Your task to perform on an android device: Open calendar and show me the fourth week of next month Image 0: 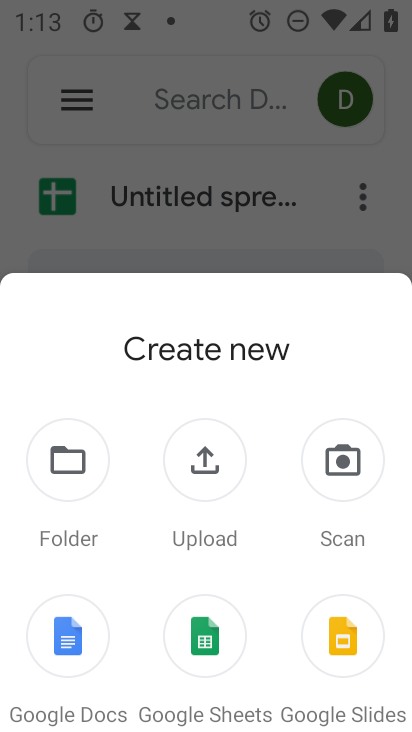
Step 0: press home button
Your task to perform on an android device: Open calendar and show me the fourth week of next month Image 1: 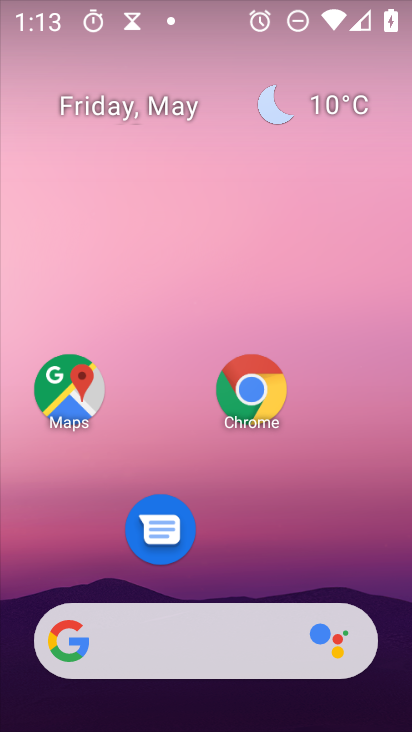
Step 1: drag from (140, 641) to (311, 160)
Your task to perform on an android device: Open calendar and show me the fourth week of next month Image 2: 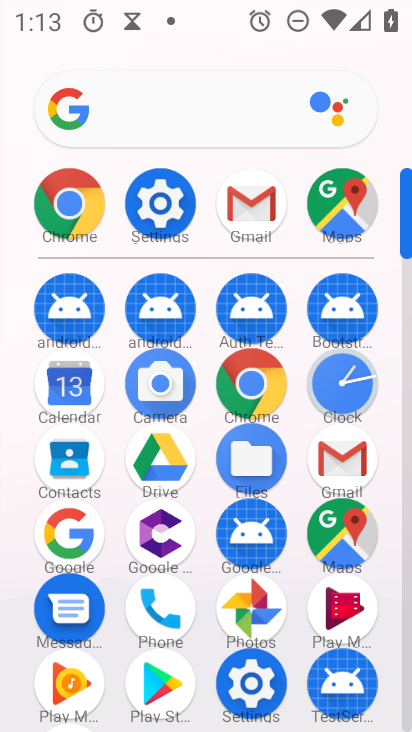
Step 2: click (84, 399)
Your task to perform on an android device: Open calendar and show me the fourth week of next month Image 3: 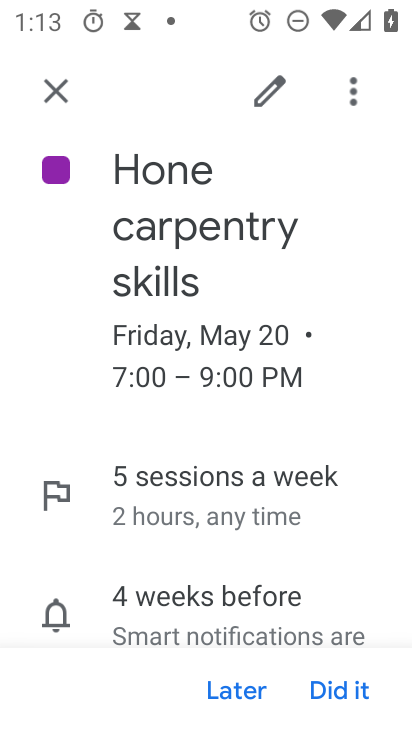
Step 3: click (59, 94)
Your task to perform on an android device: Open calendar and show me the fourth week of next month Image 4: 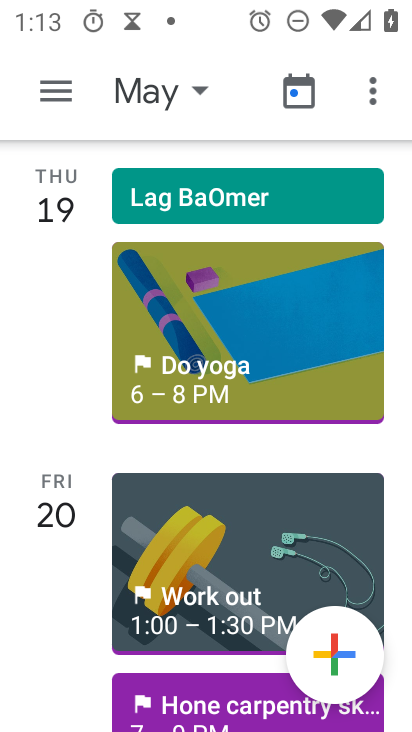
Step 4: click (158, 94)
Your task to perform on an android device: Open calendar and show me the fourth week of next month Image 5: 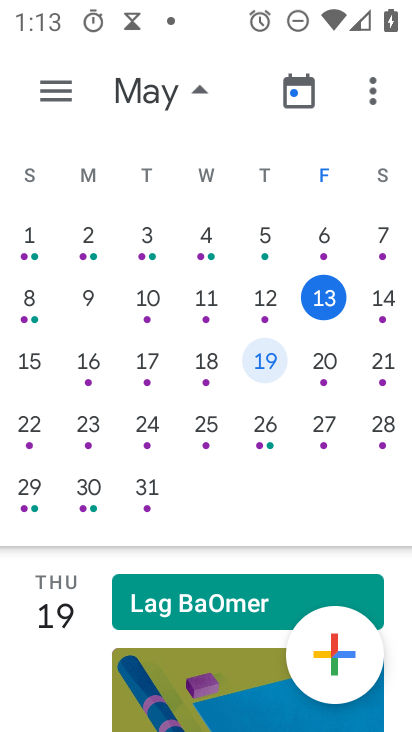
Step 5: drag from (371, 351) to (11, 378)
Your task to perform on an android device: Open calendar and show me the fourth week of next month Image 6: 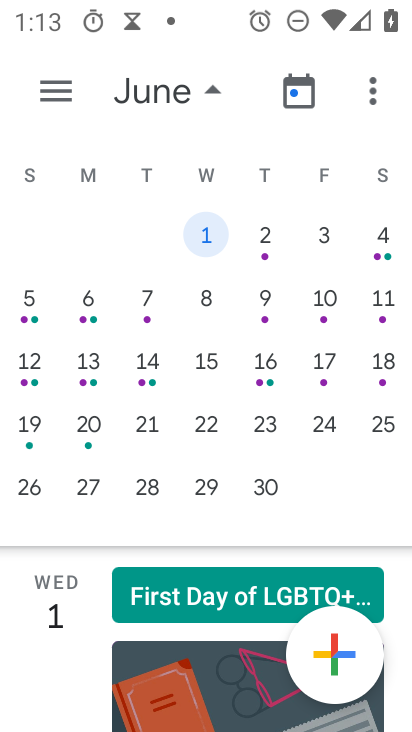
Step 6: click (29, 417)
Your task to perform on an android device: Open calendar and show me the fourth week of next month Image 7: 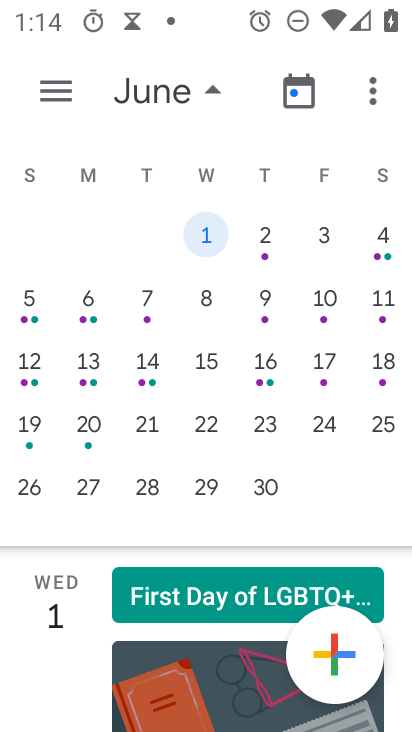
Step 7: click (34, 431)
Your task to perform on an android device: Open calendar and show me the fourth week of next month Image 8: 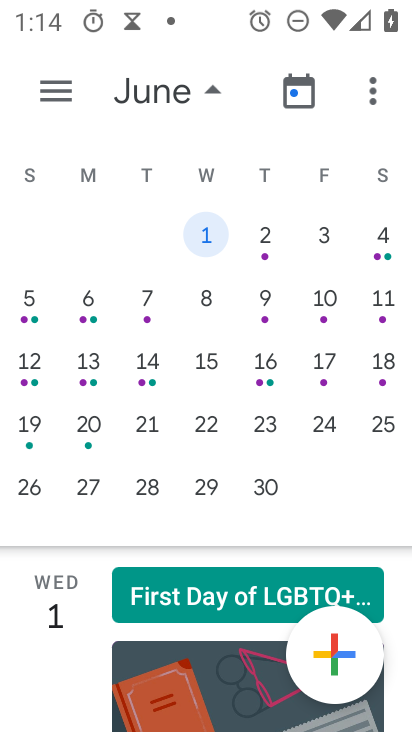
Step 8: click (38, 425)
Your task to perform on an android device: Open calendar and show me the fourth week of next month Image 9: 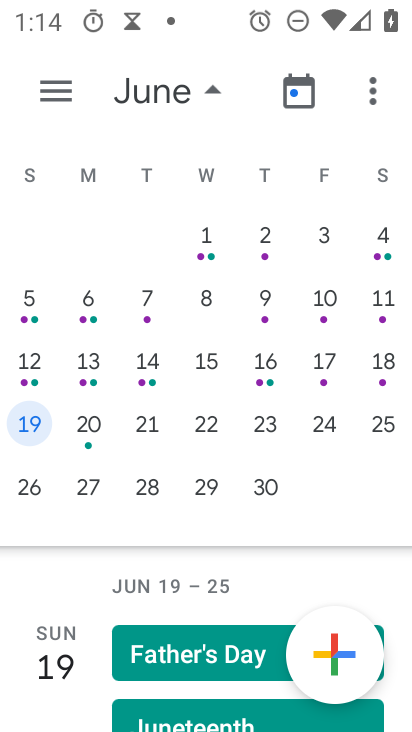
Step 9: click (57, 96)
Your task to perform on an android device: Open calendar and show me the fourth week of next month Image 10: 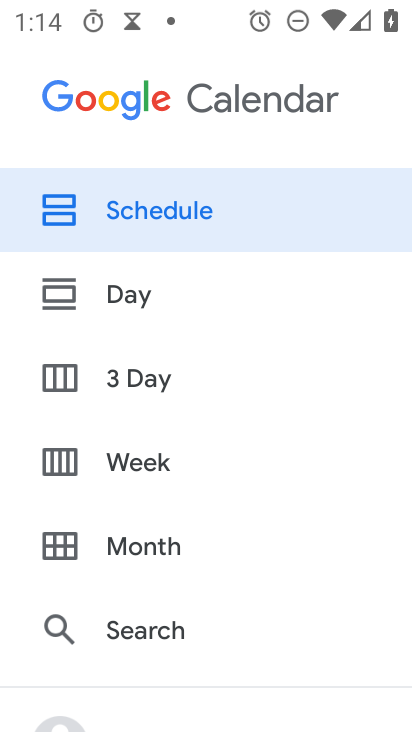
Step 10: click (167, 469)
Your task to perform on an android device: Open calendar and show me the fourth week of next month Image 11: 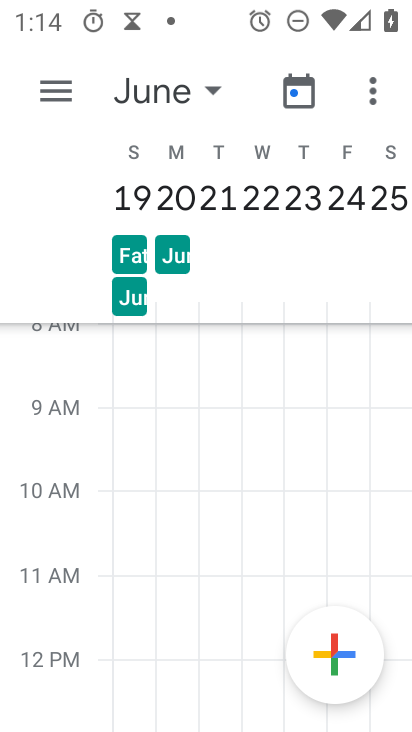
Step 11: task complete